Your task to perform on an android device: stop showing notifications on the lock screen Image 0: 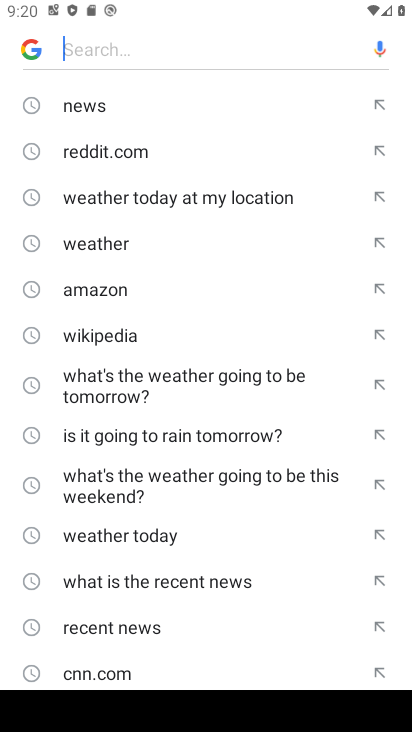
Step 0: press back button
Your task to perform on an android device: stop showing notifications on the lock screen Image 1: 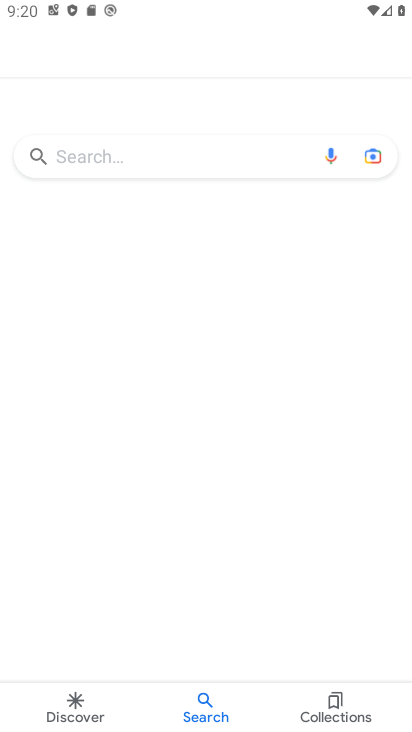
Step 1: press home button
Your task to perform on an android device: stop showing notifications on the lock screen Image 2: 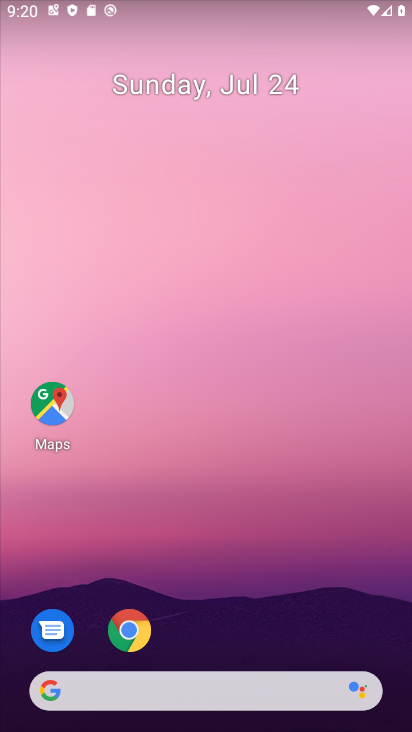
Step 2: drag from (217, 632) to (207, 130)
Your task to perform on an android device: stop showing notifications on the lock screen Image 3: 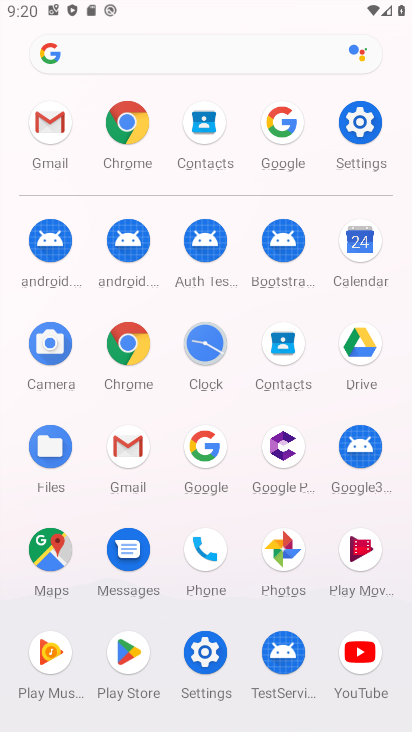
Step 3: click (361, 135)
Your task to perform on an android device: stop showing notifications on the lock screen Image 4: 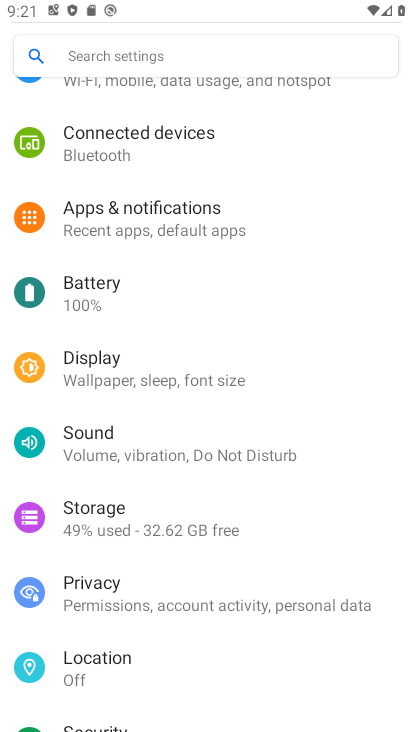
Step 4: click (143, 230)
Your task to perform on an android device: stop showing notifications on the lock screen Image 5: 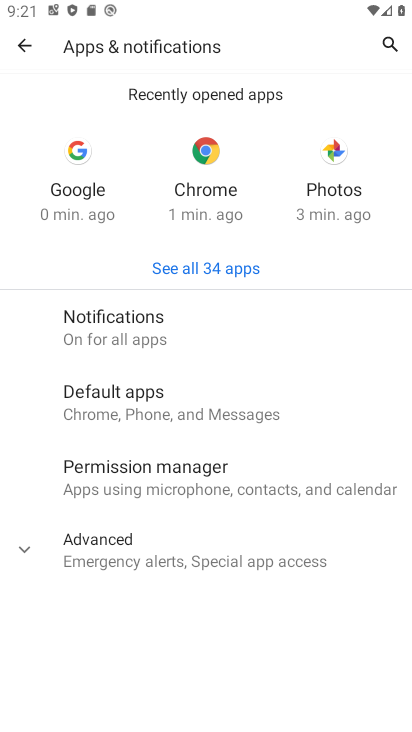
Step 5: click (153, 325)
Your task to perform on an android device: stop showing notifications on the lock screen Image 6: 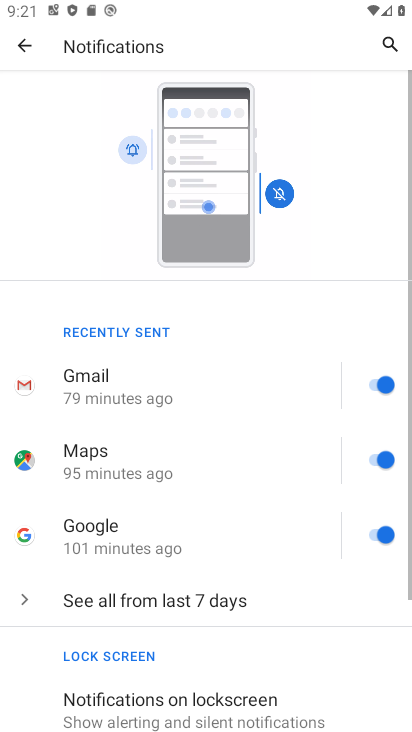
Step 6: drag from (201, 675) to (202, 325)
Your task to perform on an android device: stop showing notifications on the lock screen Image 7: 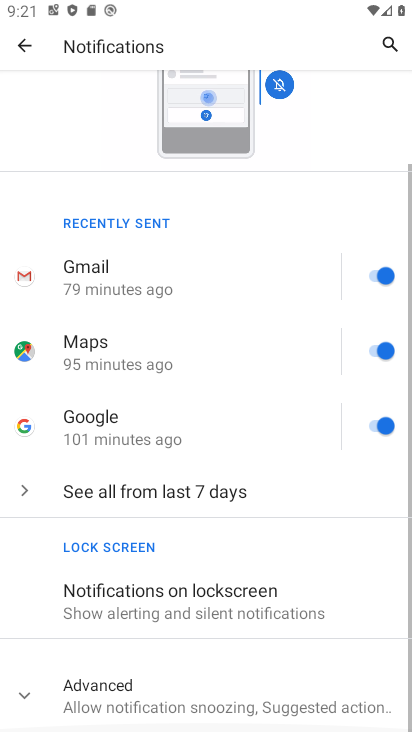
Step 7: click (234, 621)
Your task to perform on an android device: stop showing notifications on the lock screen Image 8: 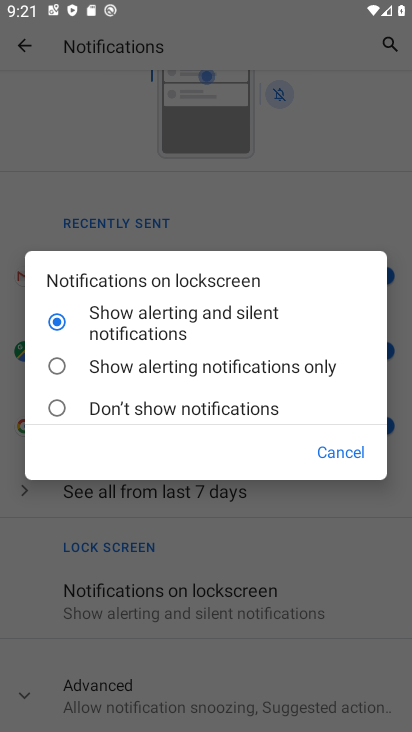
Step 8: click (200, 415)
Your task to perform on an android device: stop showing notifications on the lock screen Image 9: 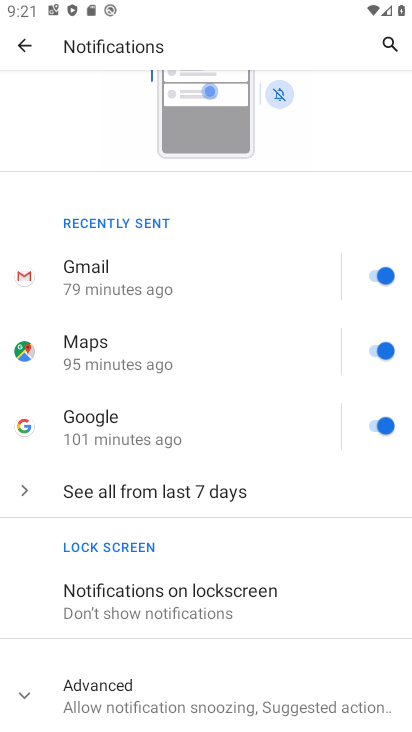
Step 9: task complete